Your task to perform on an android device: toggle data saver in the chrome app Image 0: 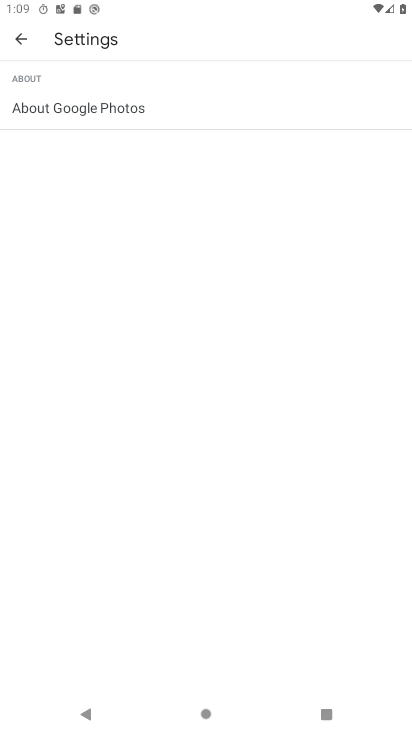
Step 0: press home button
Your task to perform on an android device: toggle data saver in the chrome app Image 1: 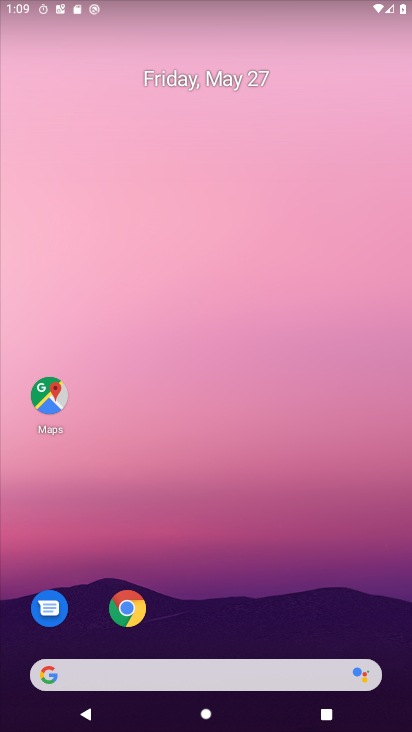
Step 1: drag from (396, 596) to (347, 147)
Your task to perform on an android device: toggle data saver in the chrome app Image 2: 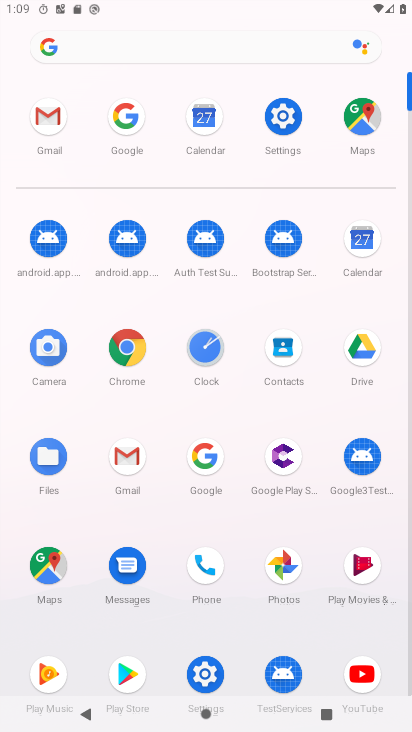
Step 2: click (124, 343)
Your task to perform on an android device: toggle data saver in the chrome app Image 3: 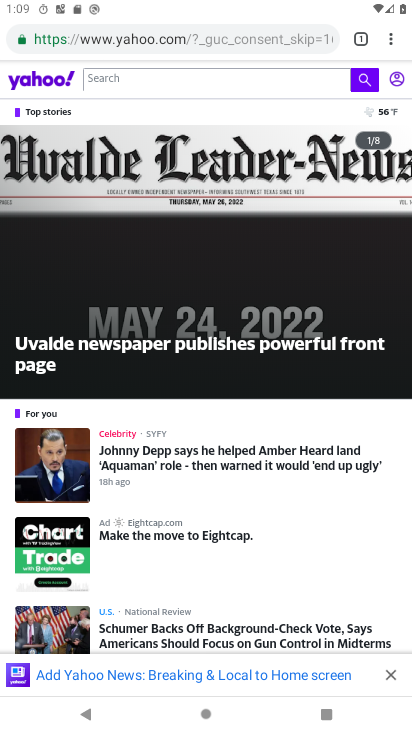
Step 3: click (387, 38)
Your task to perform on an android device: toggle data saver in the chrome app Image 4: 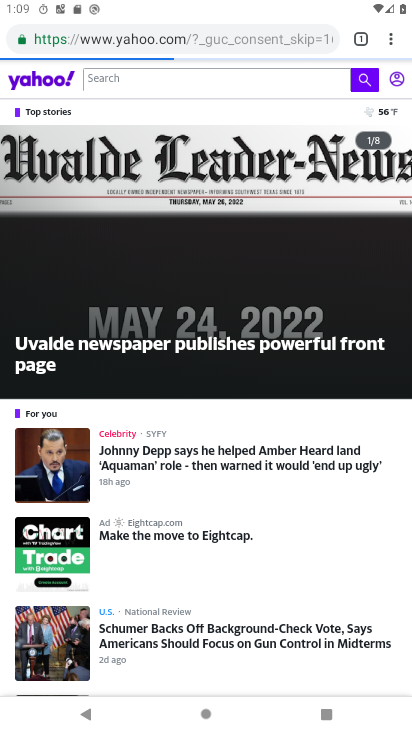
Step 4: click (390, 34)
Your task to perform on an android device: toggle data saver in the chrome app Image 5: 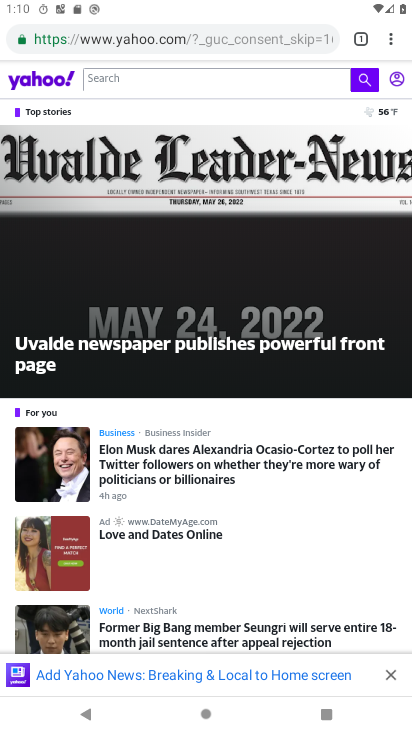
Step 5: click (390, 39)
Your task to perform on an android device: toggle data saver in the chrome app Image 6: 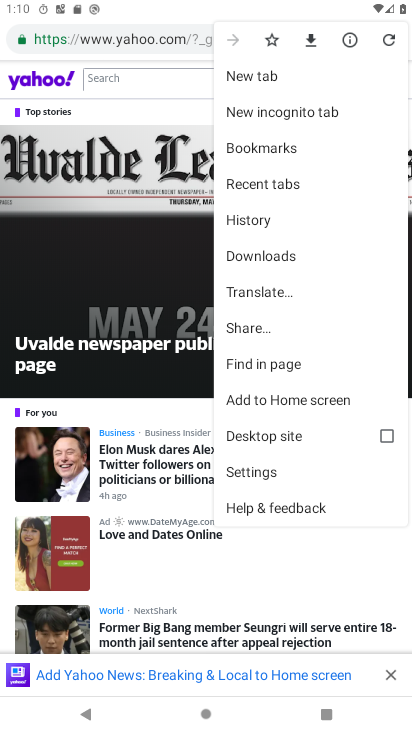
Step 6: click (256, 473)
Your task to perform on an android device: toggle data saver in the chrome app Image 7: 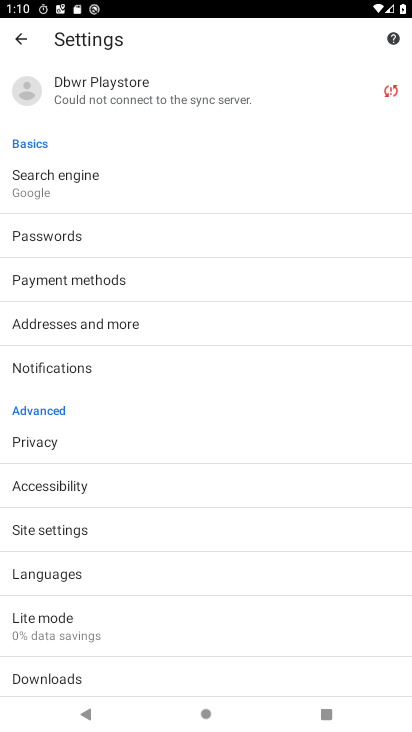
Step 7: click (36, 624)
Your task to perform on an android device: toggle data saver in the chrome app Image 8: 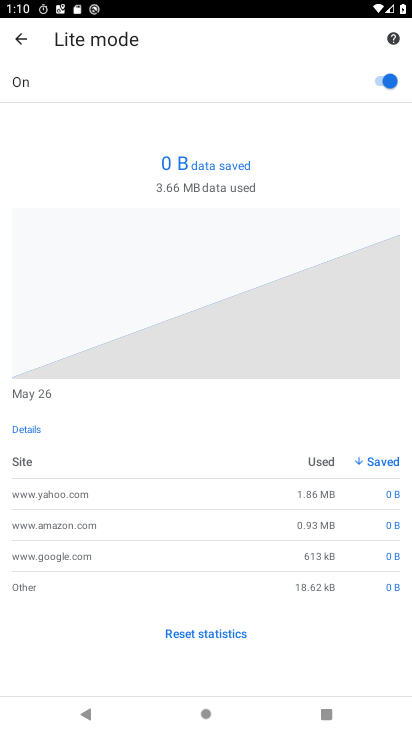
Step 8: click (377, 77)
Your task to perform on an android device: toggle data saver in the chrome app Image 9: 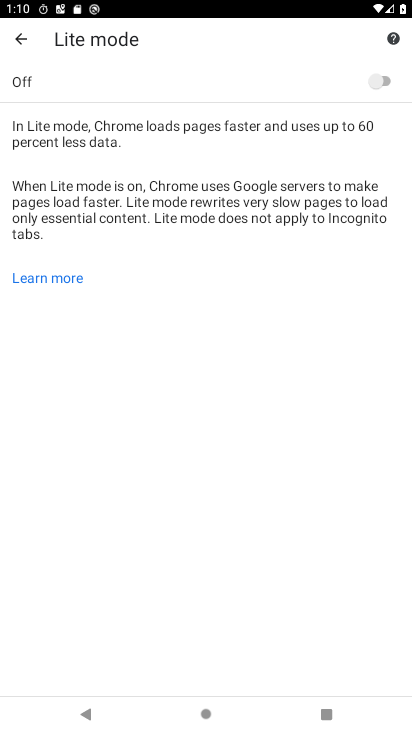
Step 9: task complete